Your task to perform on an android device: check out phone information Image 0: 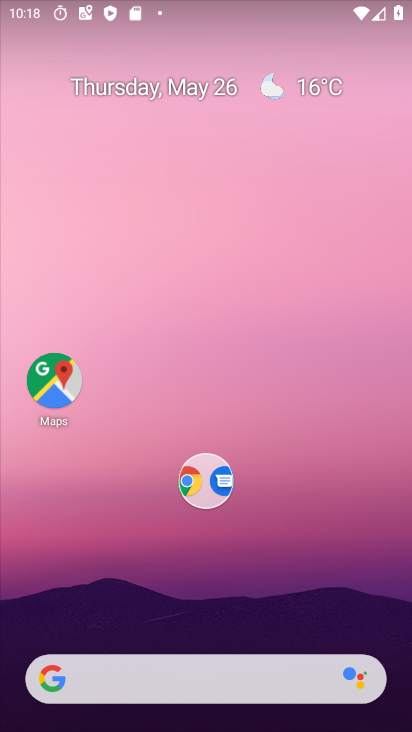
Step 0: drag from (157, 617) to (208, 33)
Your task to perform on an android device: check out phone information Image 1: 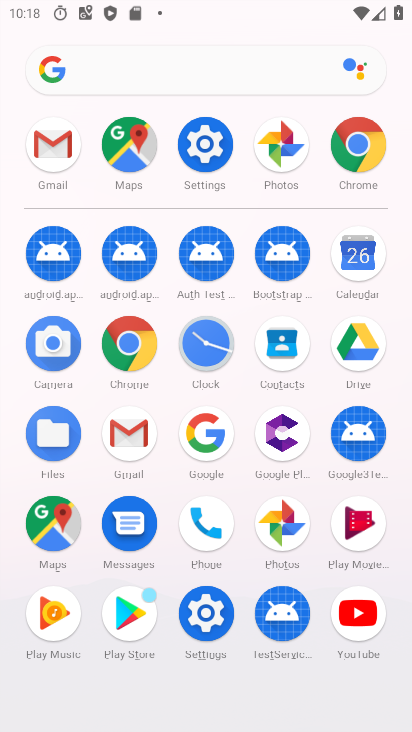
Step 1: click (176, 168)
Your task to perform on an android device: check out phone information Image 2: 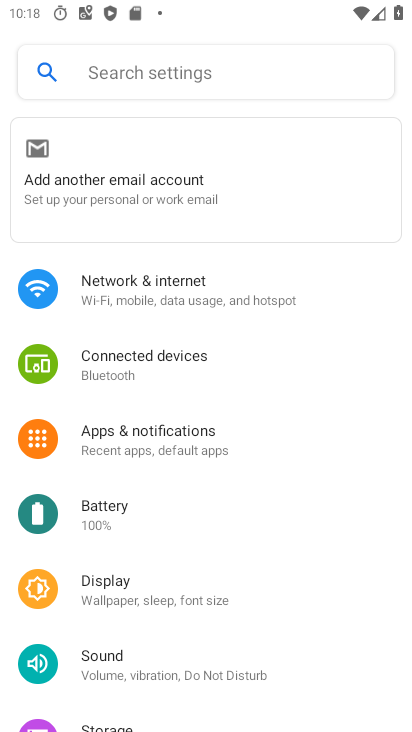
Step 2: drag from (104, 683) to (215, 135)
Your task to perform on an android device: check out phone information Image 3: 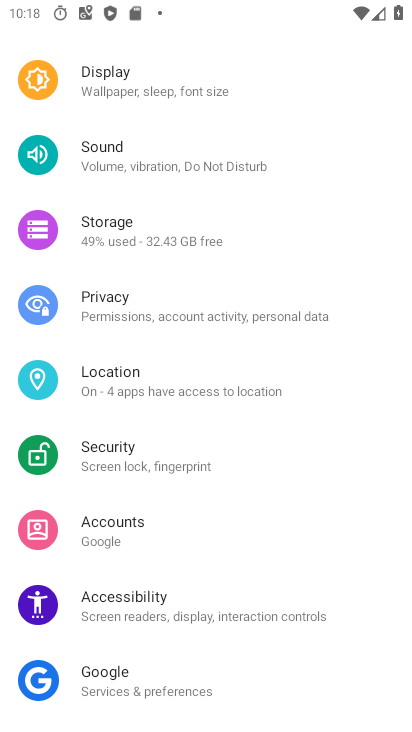
Step 3: drag from (143, 710) to (158, 283)
Your task to perform on an android device: check out phone information Image 4: 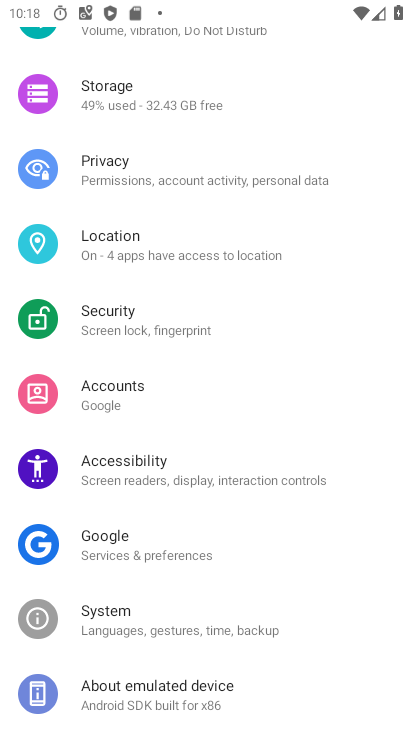
Step 4: click (183, 679)
Your task to perform on an android device: check out phone information Image 5: 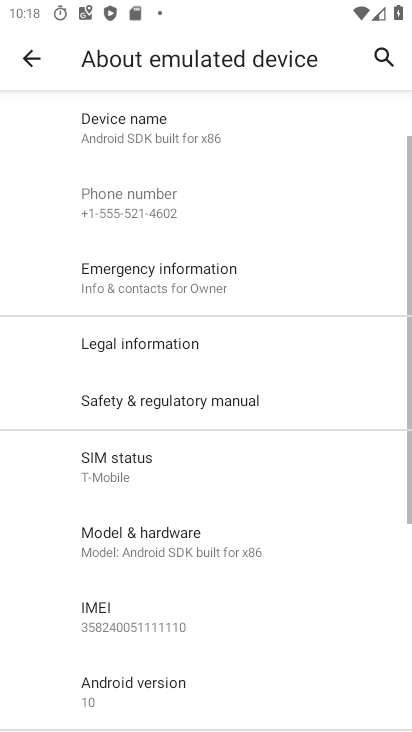
Step 5: click (191, 691)
Your task to perform on an android device: check out phone information Image 6: 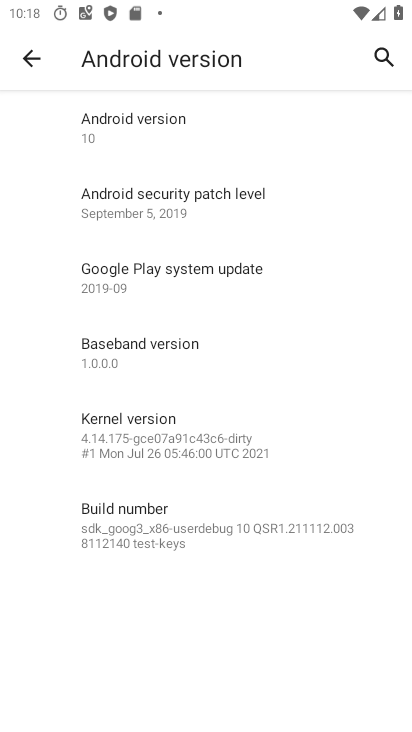
Step 6: task complete